Your task to perform on an android device: check google app version Image 0: 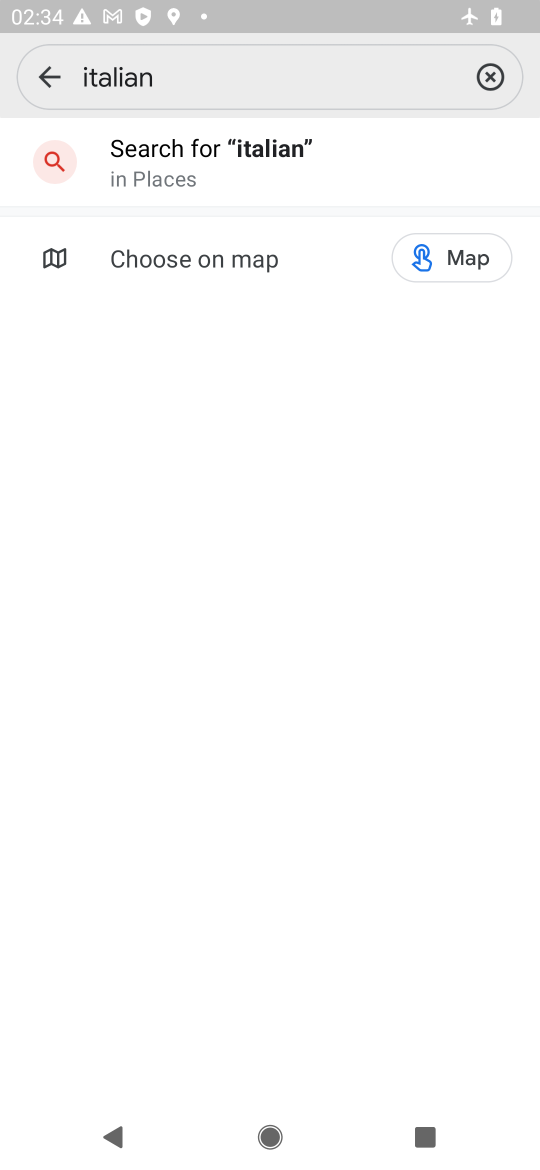
Step 0: press home button
Your task to perform on an android device: check google app version Image 1: 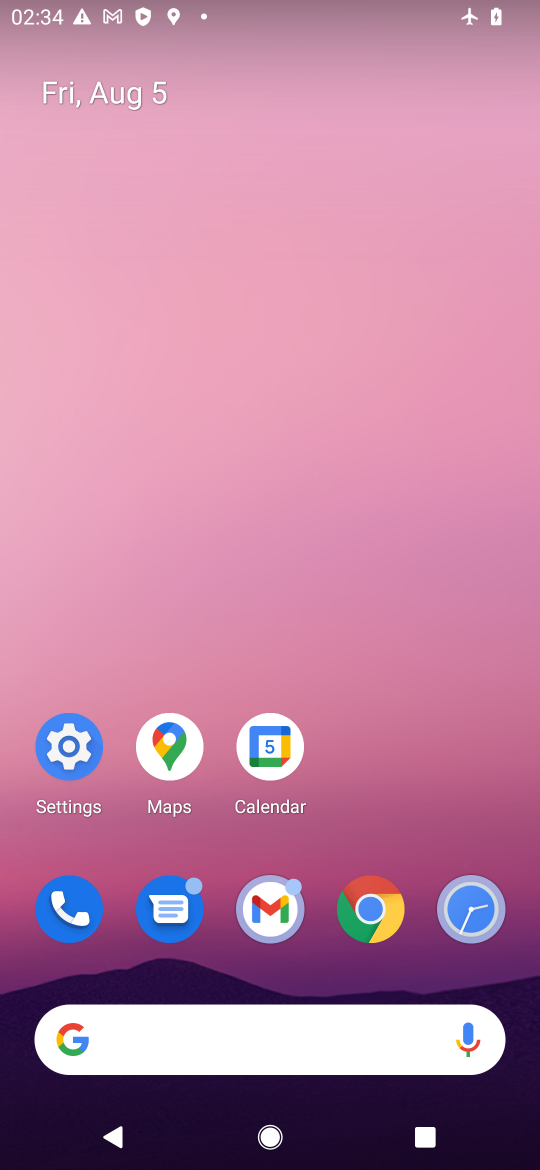
Step 1: click (66, 1040)
Your task to perform on an android device: check google app version Image 2: 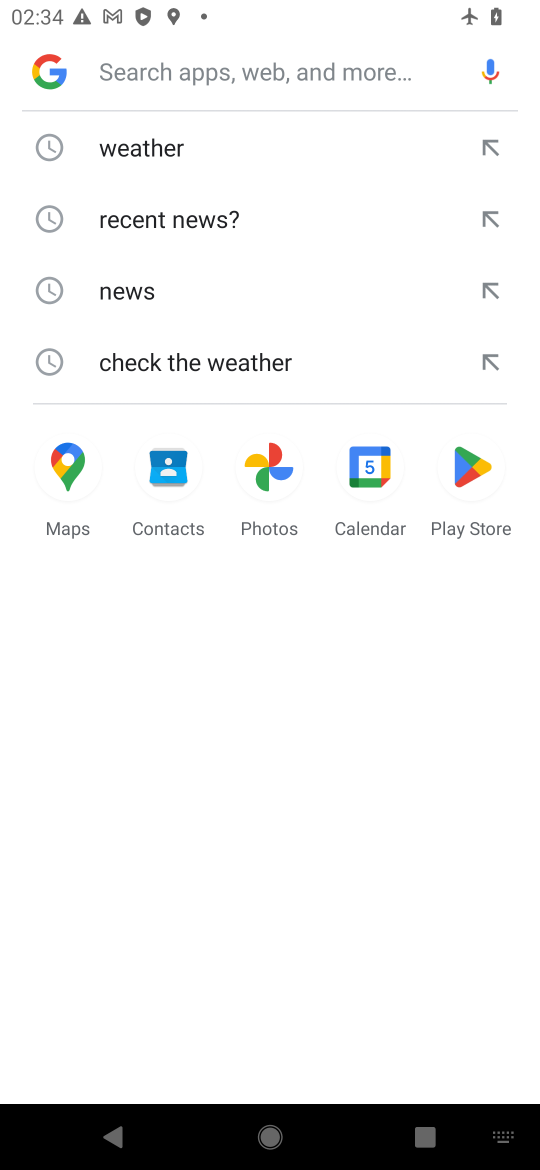
Step 2: click (52, 68)
Your task to perform on an android device: check google app version Image 3: 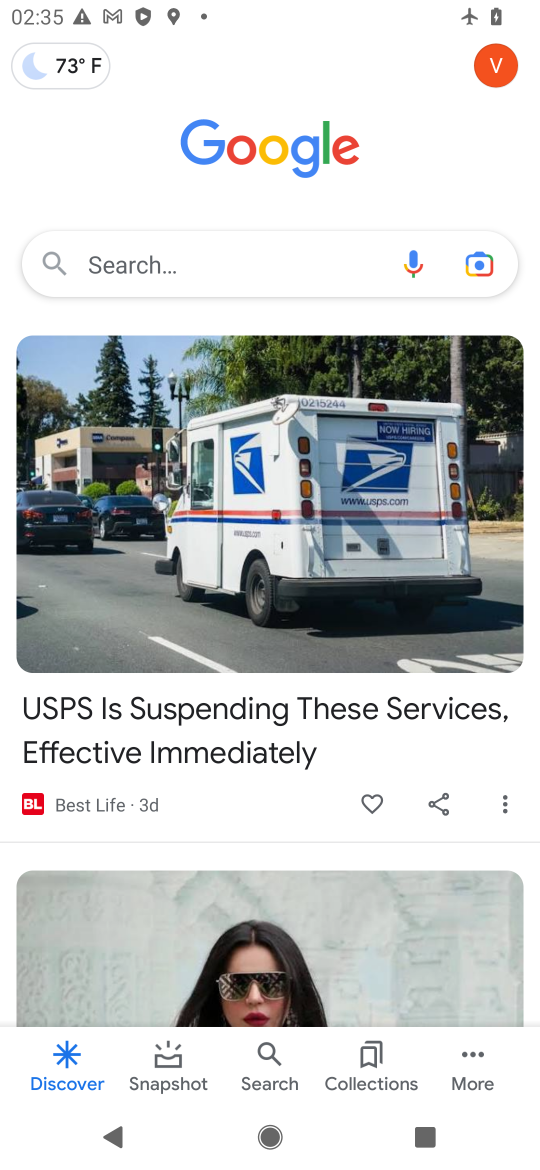
Step 3: click (492, 73)
Your task to perform on an android device: check google app version Image 4: 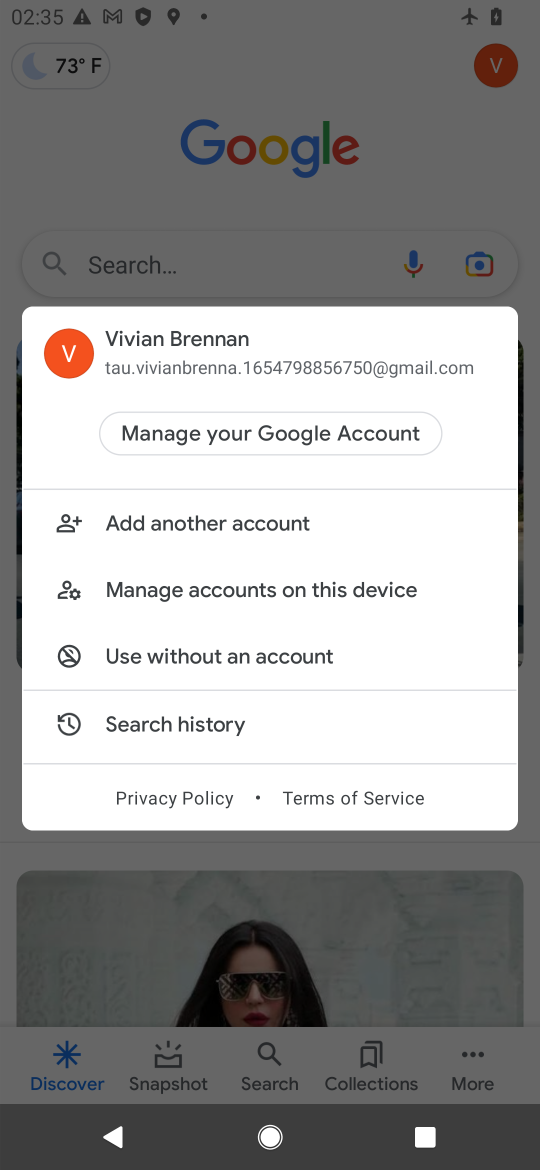
Step 4: click (493, 62)
Your task to perform on an android device: check google app version Image 5: 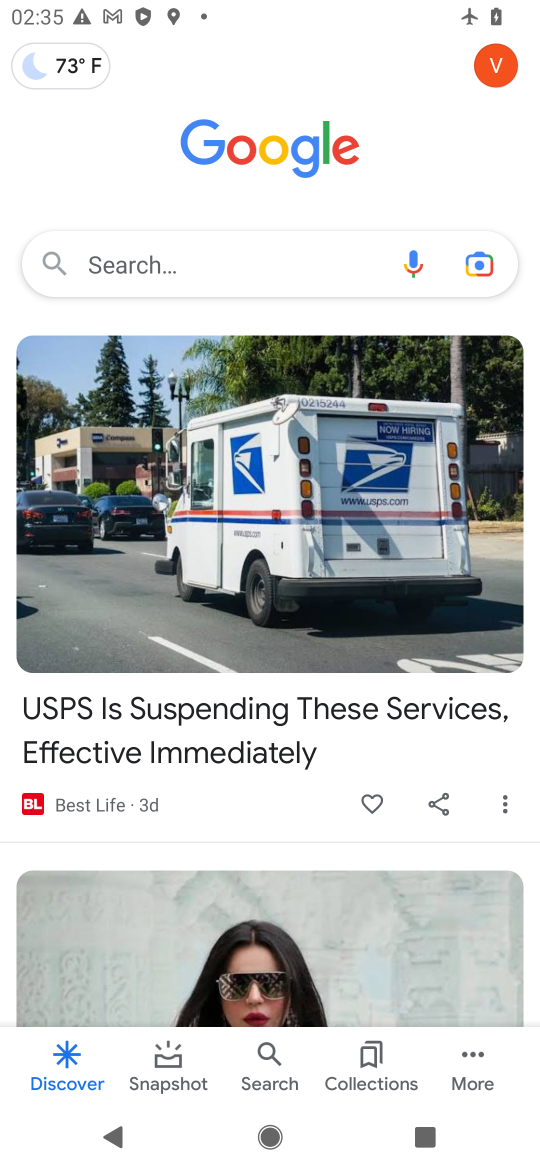
Step 5: click (477, 1067)
Your task to perform on an android device: check google app version Image 6: 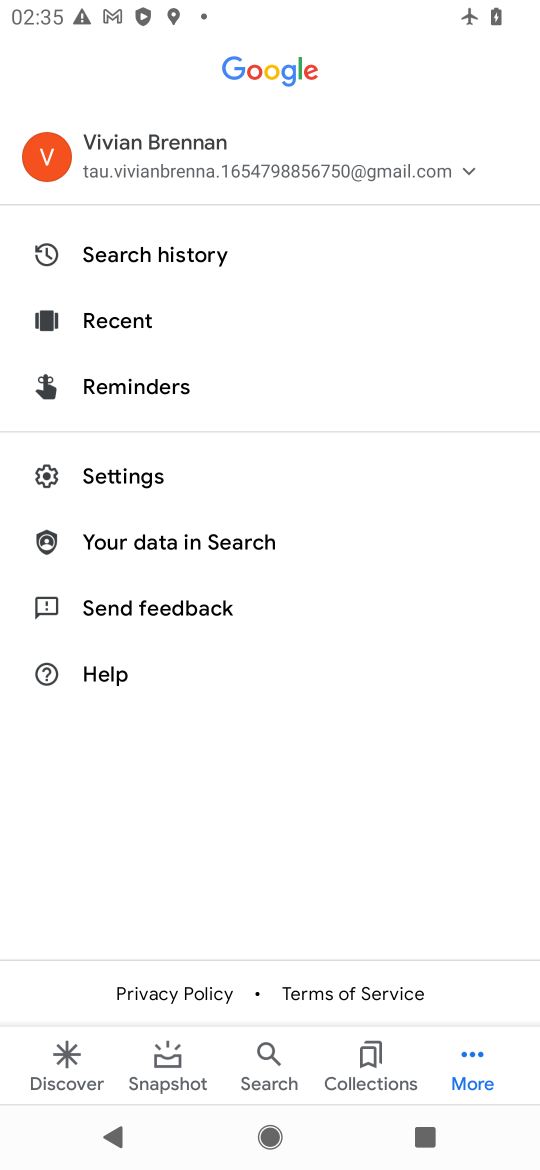
Step 6: click (101, 474)
Your task to perform on an android device: check google app version Image 7: 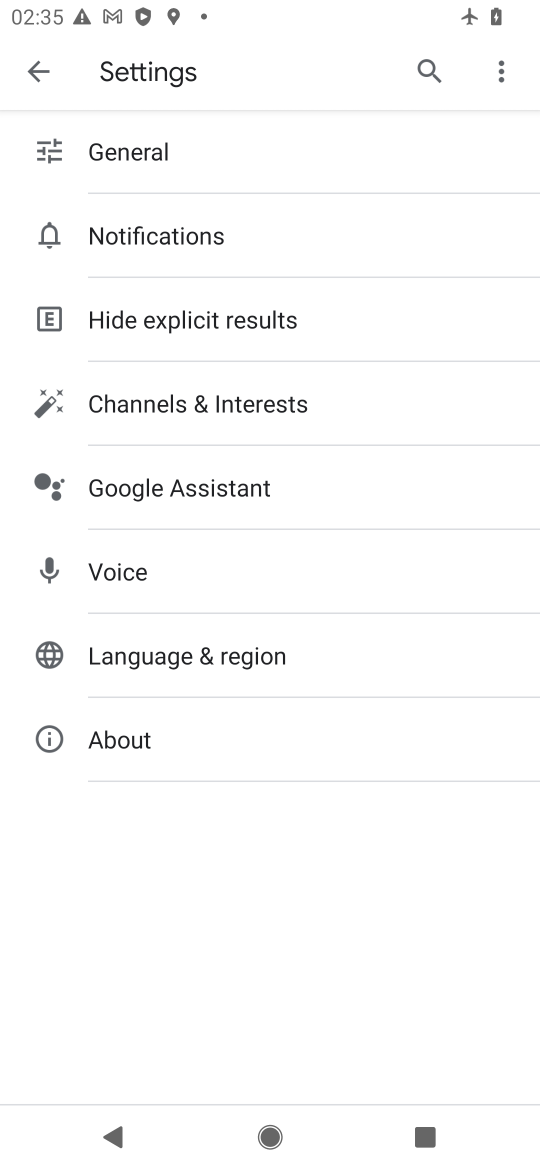
Step 7: click (128, 752)
Your task to perform on an android device: check google app version Image 8: 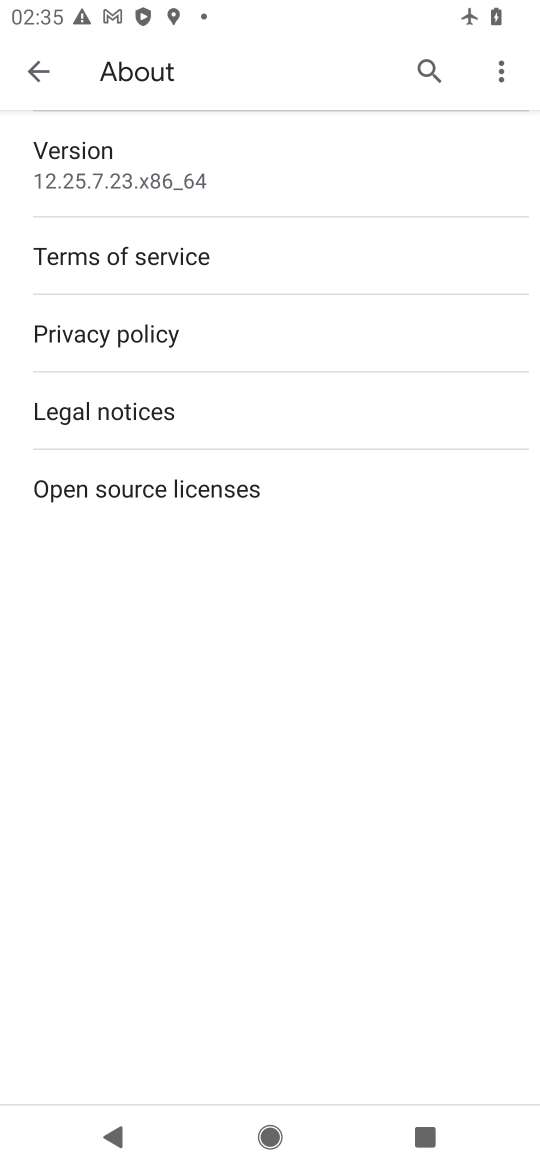
Step 8: task complete